Your task to perform on an android device: change the upload size in google photos Image 0: 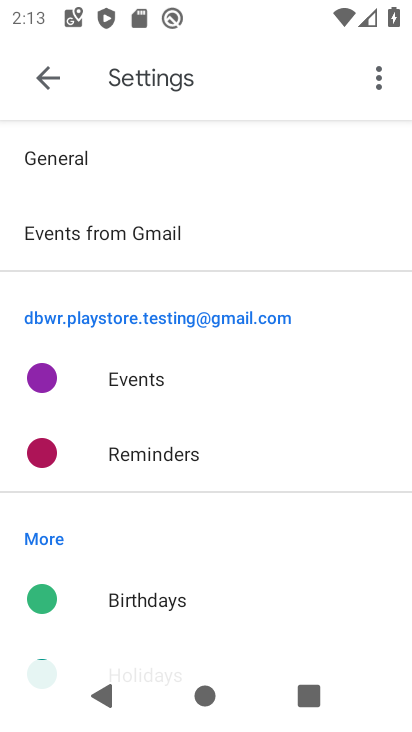
Step 0: press home button
Your task to perform on an android device: change the upload size in google photos Image 1: 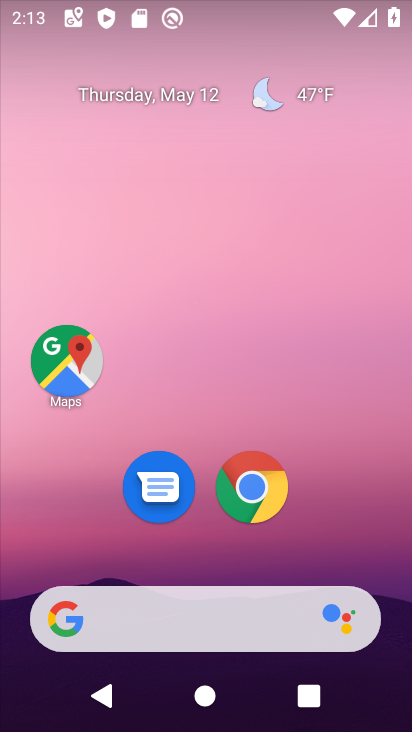
Step 1: drag from (357, 537) to (229, 76)
Your task to perform on an android device: change the upload size in google photos Image 2: 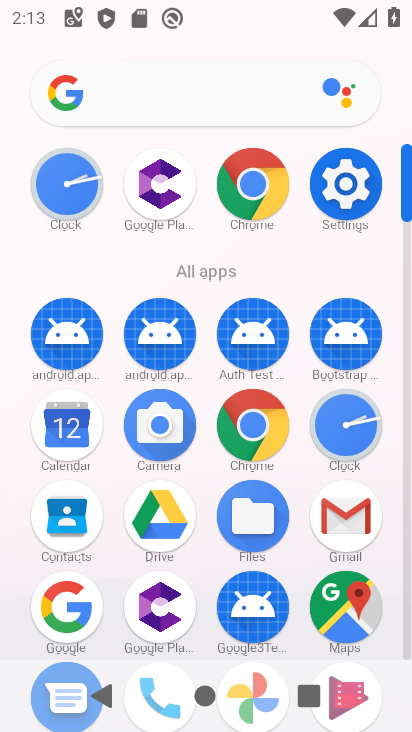
Step 2: drag from (275, 556) to (282, 292)
Your task to perform on an android device: change the upload size in google photos Image 3: 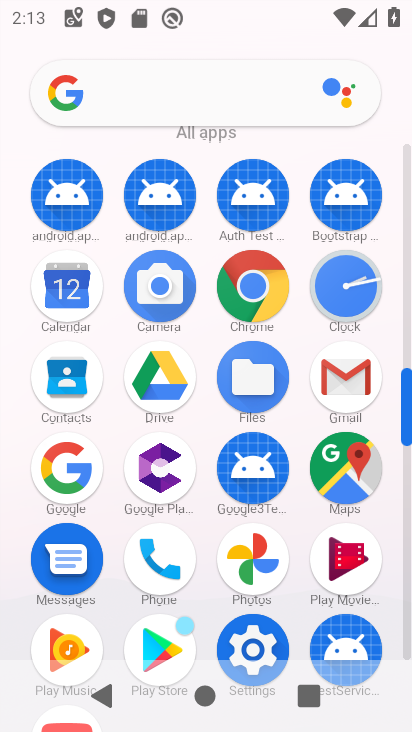
Step 3: click (252, 579)
Your task to perform on an android device: change the upload size in google photos Image 4: 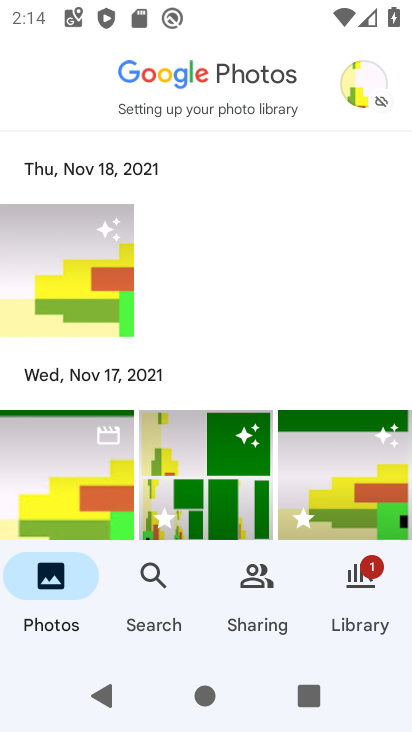
Step 4: click (353, 75)
Your task to perform on an android device: change the upload size in google photos Image 5: 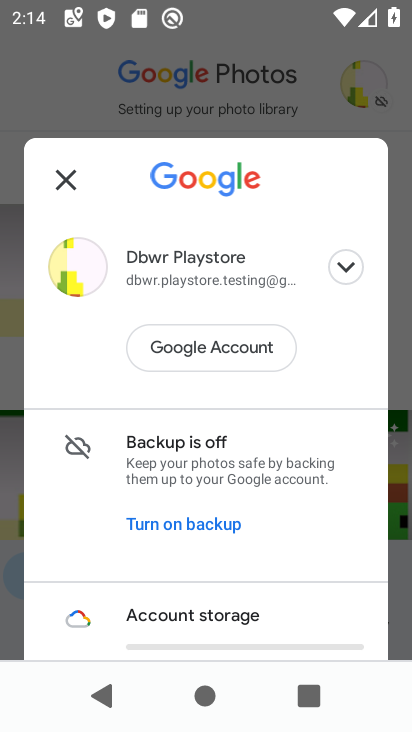
Step 5: drag from (269, 536) to (280, 71)
Your task to perform on an android device: change the upload size in google photos Image 6: 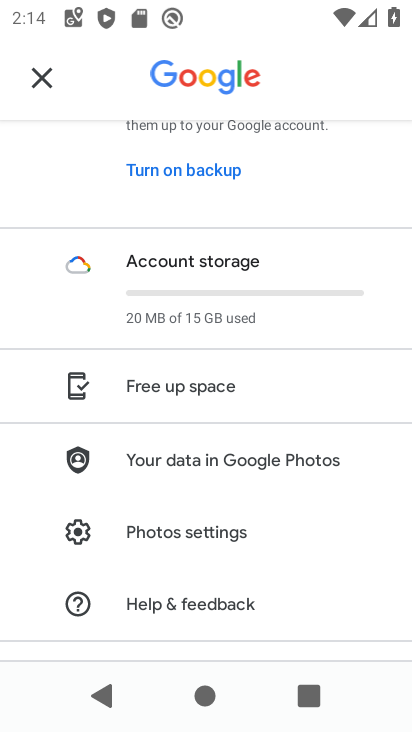
Step 6: click (160, 529)
Your task to perform on an android device: change the upload size in google photos Image 7: 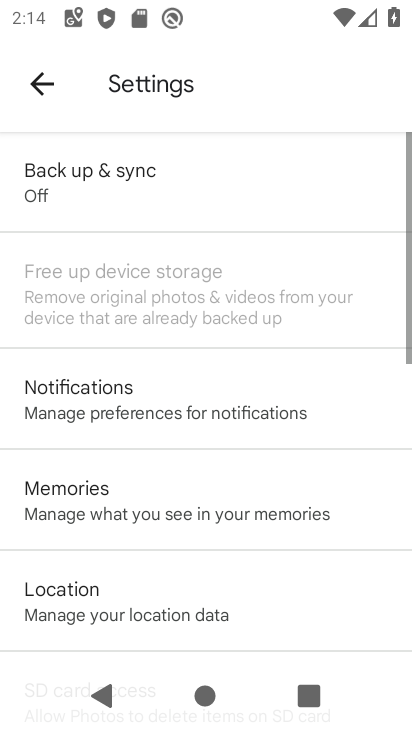
Step 7: click (181, 171)
Your task to perform on an android device: change the upload size in google photos Image 8: 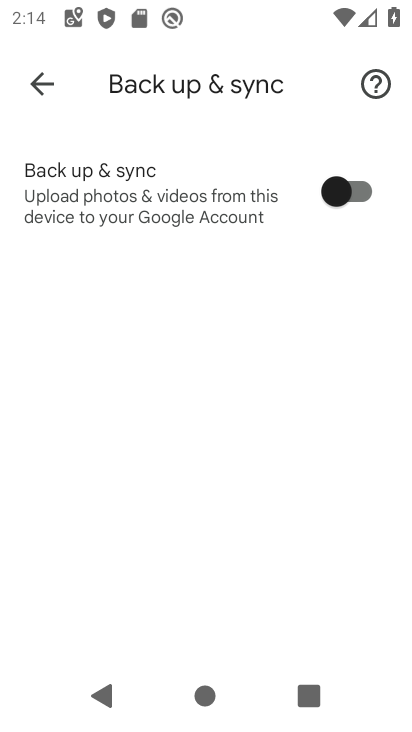
Step 8: click (275, 205)
Your task to perform on an android device: change the upload size in google photos Image 9: 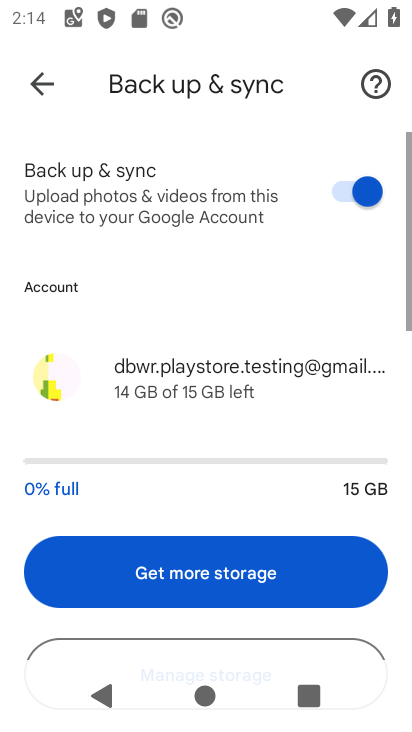
Step 9: drag from (210, 518) to (225, 65)
Your task to perform on an android device: change the upload size in google photos Image 10: 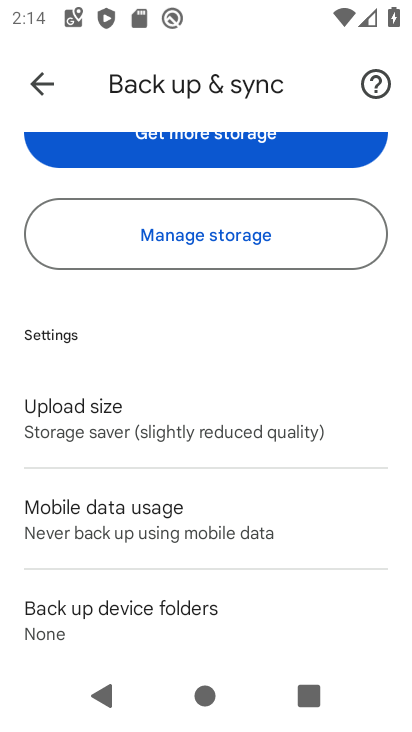
Step 10: click (164, 434)
Your task to perform on an android device: change the upload size in google photos Image 11: 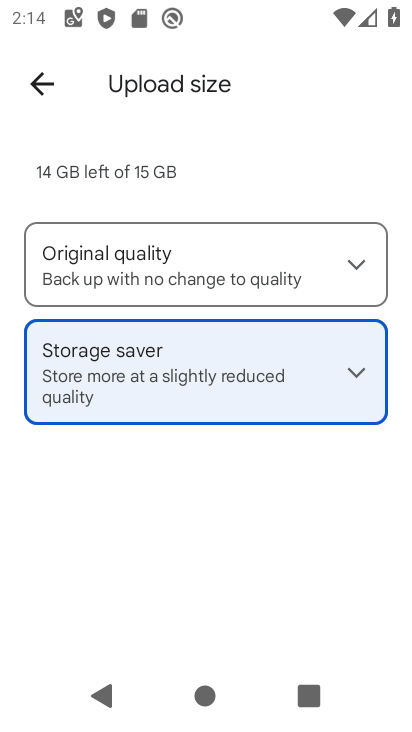
Step 11: click (203, 301)
Your task to perform on an android device: change the upload size in google photos Image 12: 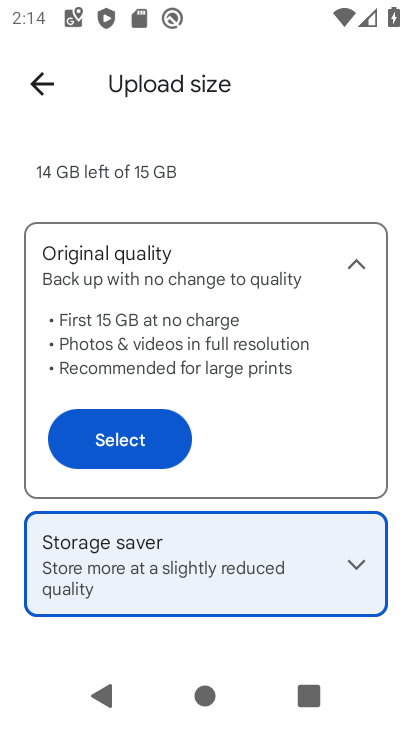
Step 12: click (134, 433)
Your task to perform on an android device: change the upload size in google photos Image 13: 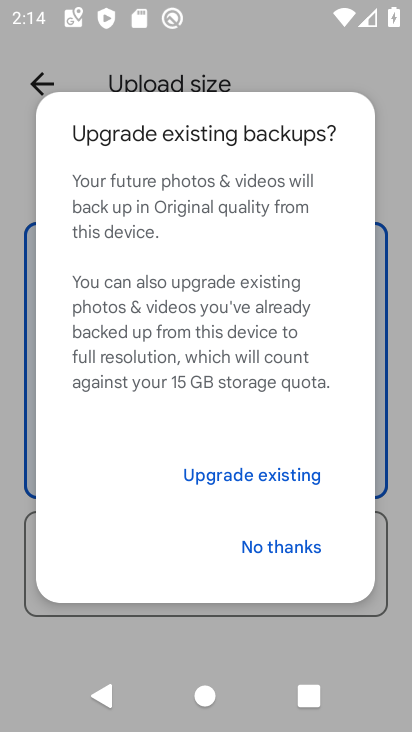
Step 13: click (273, 551)
Your task to perform on an android device: change the upload size in google photos Image 14: 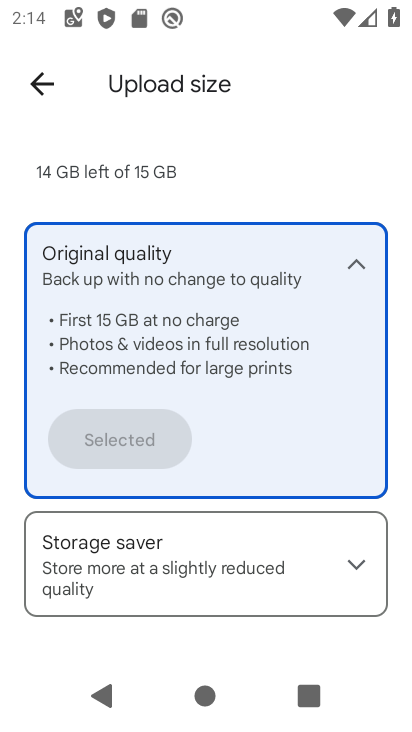
Step 14: task complete